Your task to perform on an android device: toggle translation in the chrome app Image 0: 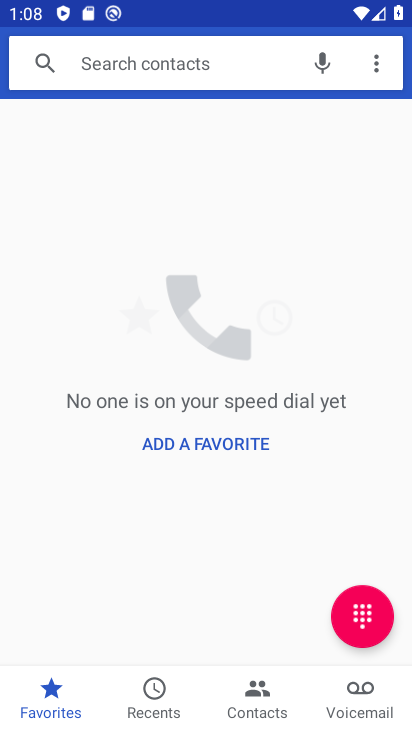
Step 0: press back button
Your task to perform on an android device: toggle translation in the chrome app Image 1: 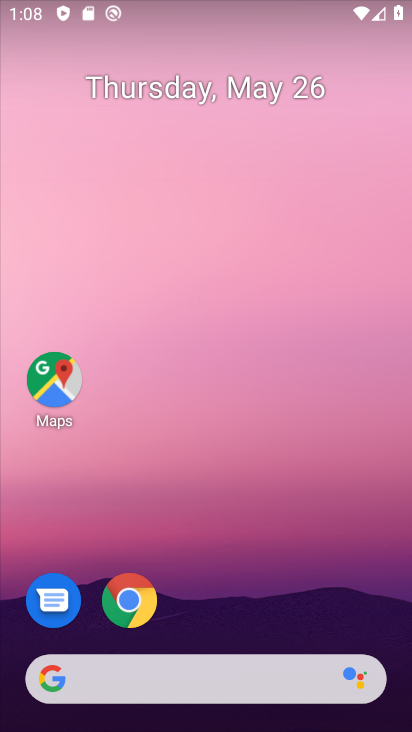
Step 1: click (128, 597)
Your task to perform on an android device: toggle translation in the chrome app Image 2: 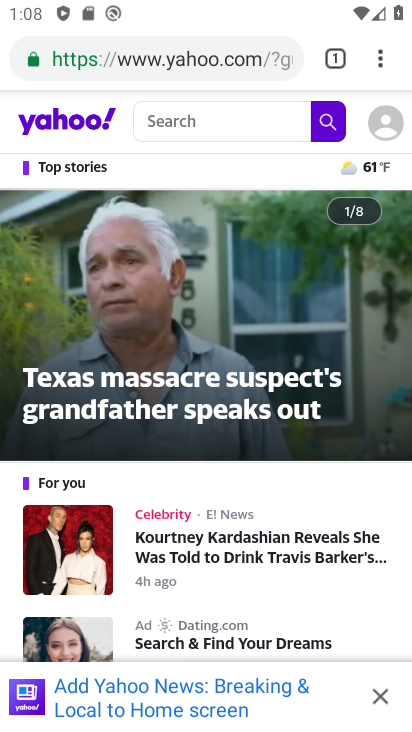
Step 2: click (382, 56)
Your task to perform on an android device: toggle translation in the chrome app Image 3: 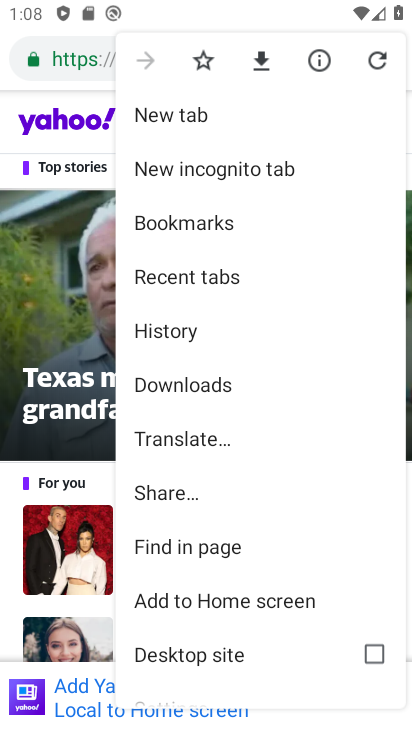
Step 3: drag from (169, 526) to (235, 418)
Your task to perform on an android device: toggle translation in the chrome app Image 4: 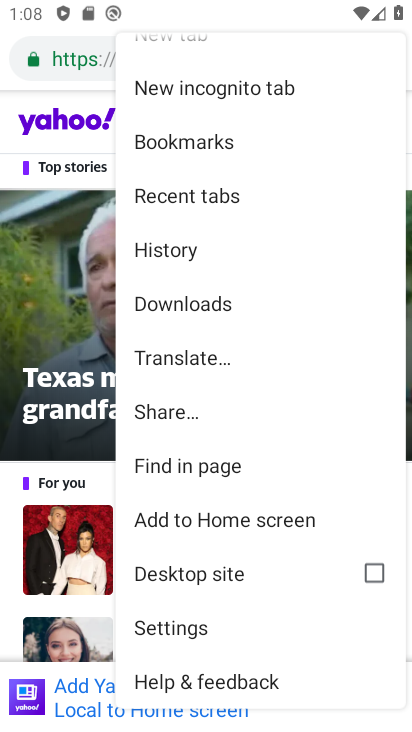
Step 4: click (172, 621)
Your task to perform on an android device: toggle translation in the chrome app Image 5: 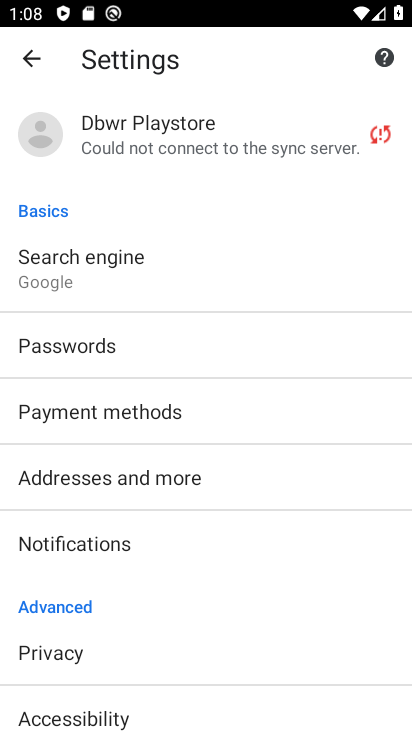
Step 5: drag from (131, 569) to (207, 426)
Your task to perform on an android device: toggle translation in the chrome app Image 6: 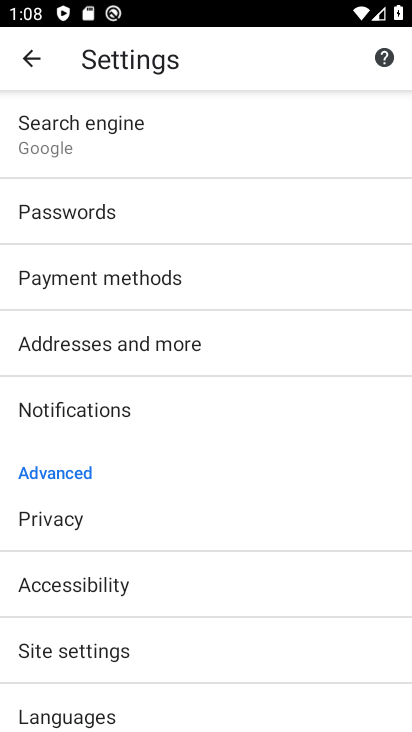
Step 6: drag from (152, 592) to (204, 499)
Your task to perform on an android device: toggle translation in the chrome app Image 7: 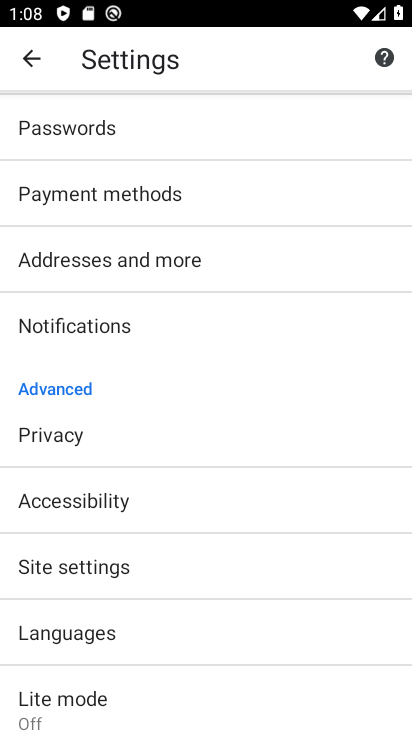
Step 7: click (97, 627)
Your task to perform on an android device: toggle translation in the chrome app Image 8: 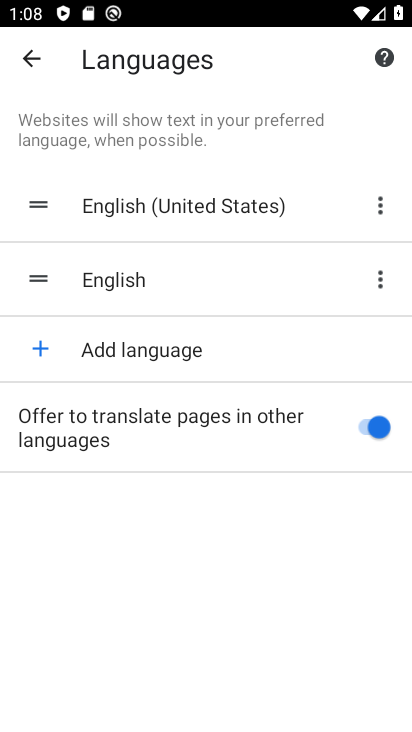
Step 8: click (372, 426)
Your task to perform on an android device: toggle translation in the chrome app Image 9: 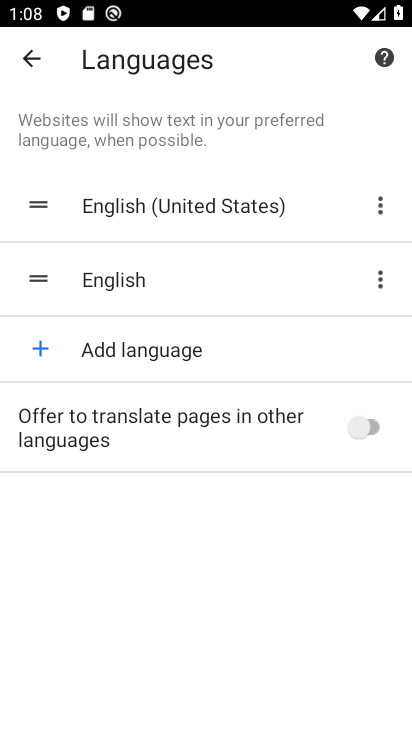
Step 9: task complete